Your task to perform on an android device: open app "Google Sheets" Image 0: 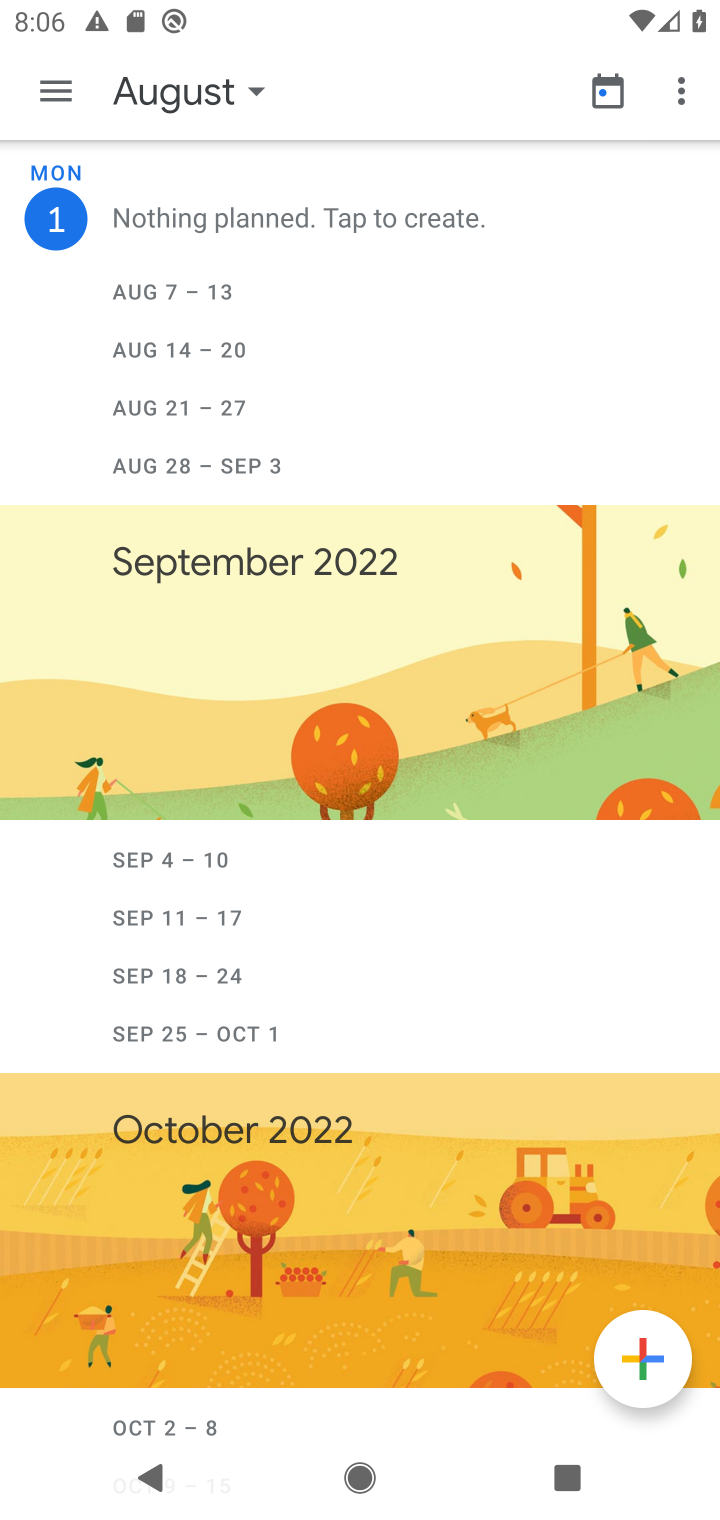
Step 0: press home button
Your task to perform on an android device: open app "Google Sheets" Image 1: 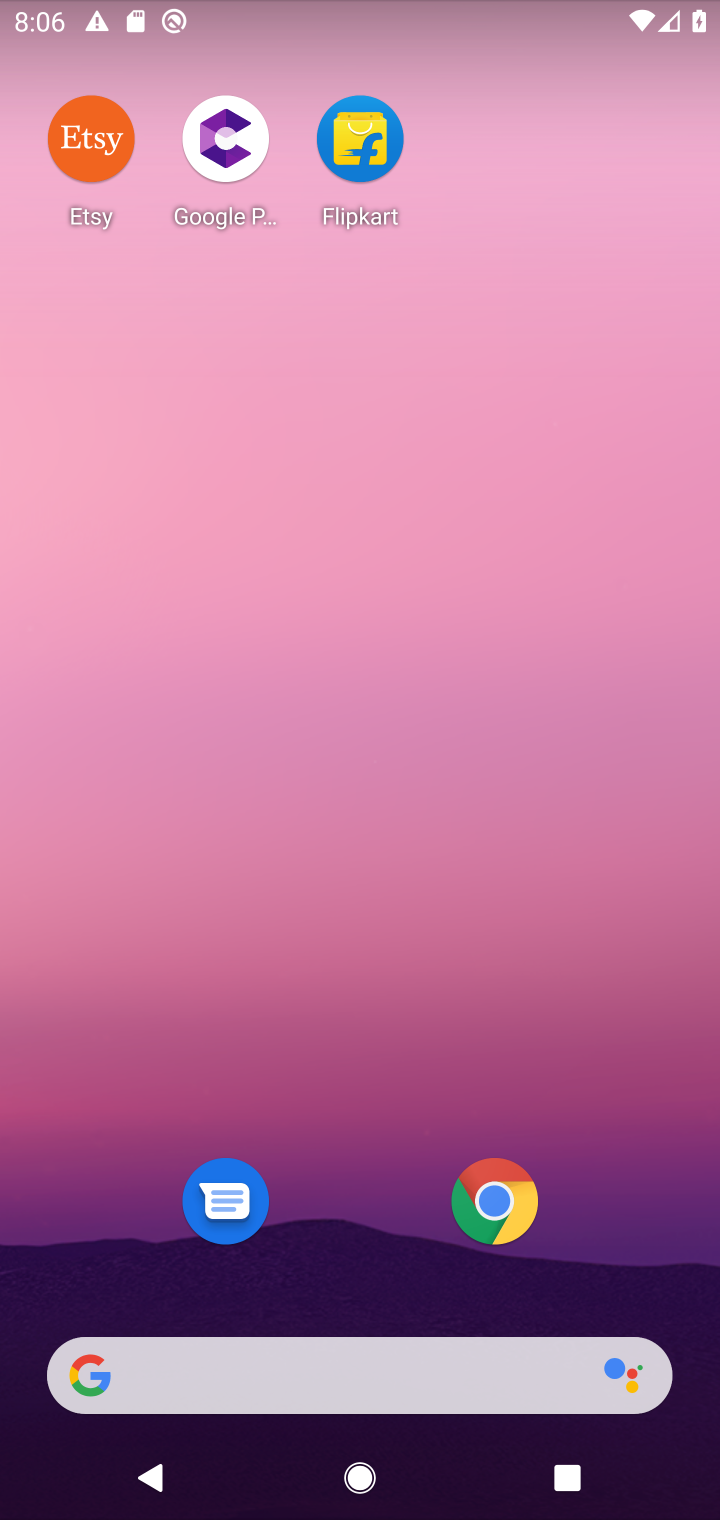
Step 1: drag from (475, 781) to (519, 102)
Your task to perform on an android device: open app "Google Sheets" Image 2: 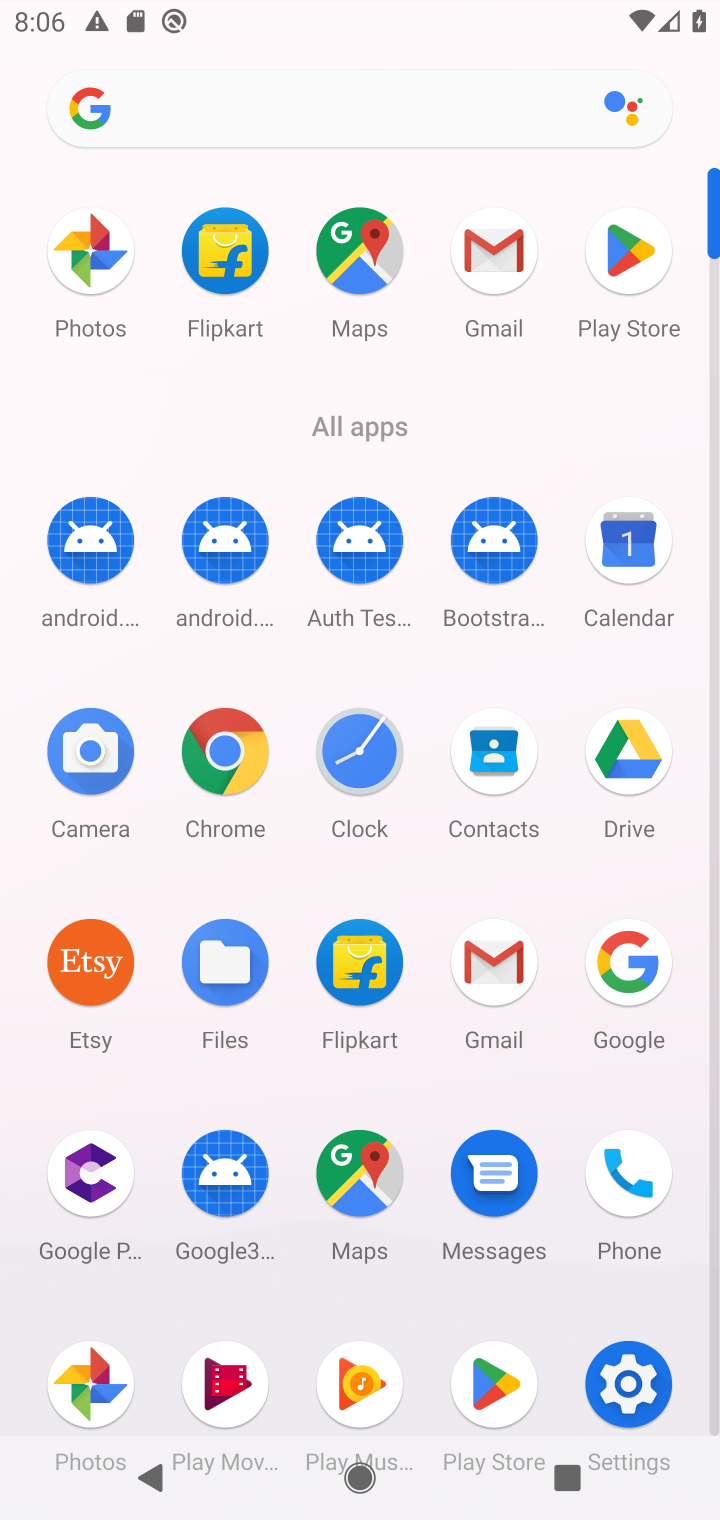
Step 2: click (645, 267)
Your task to perform on an android device: open app "Google Sheets" Image 3: 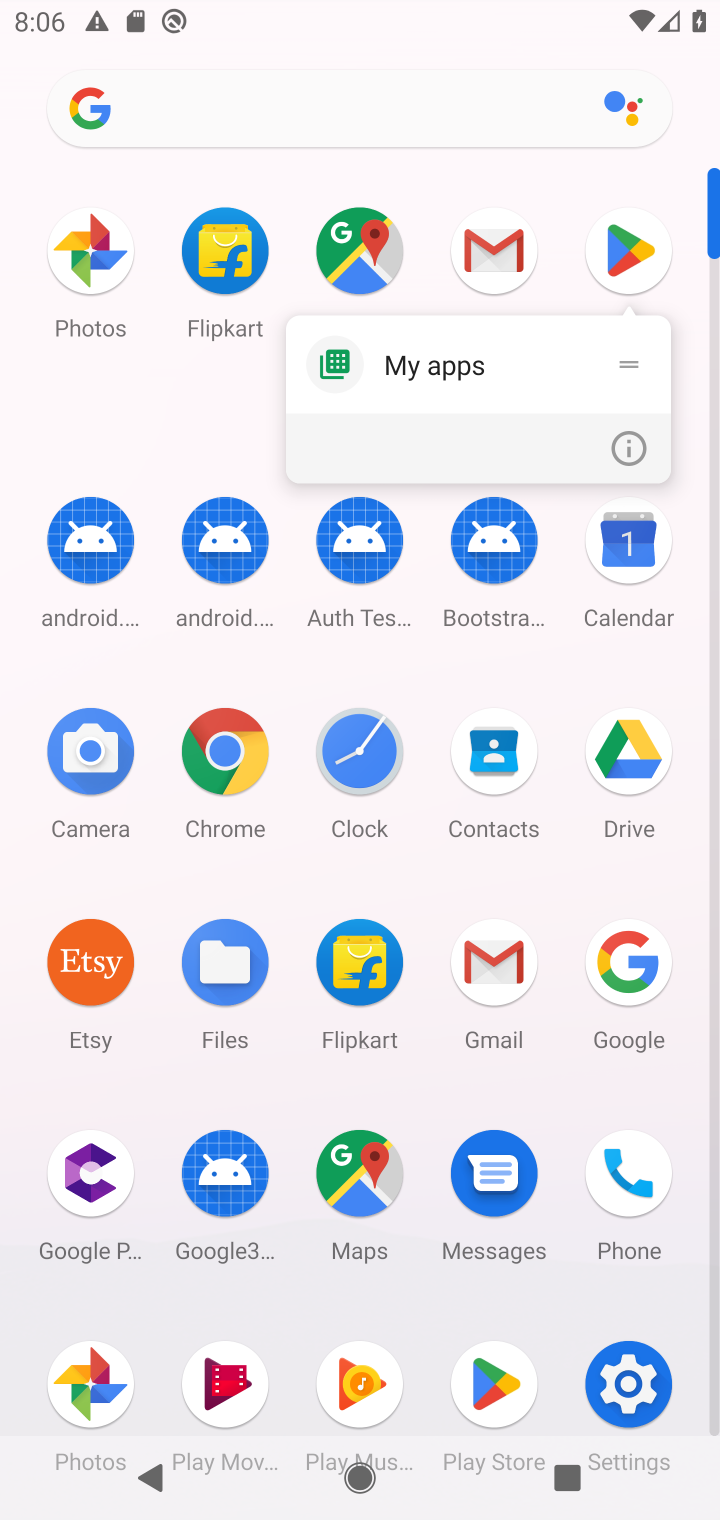
Step 3: click (619, 260)
Your task to perform on an android device: open app "Google Sheets" Image 4: 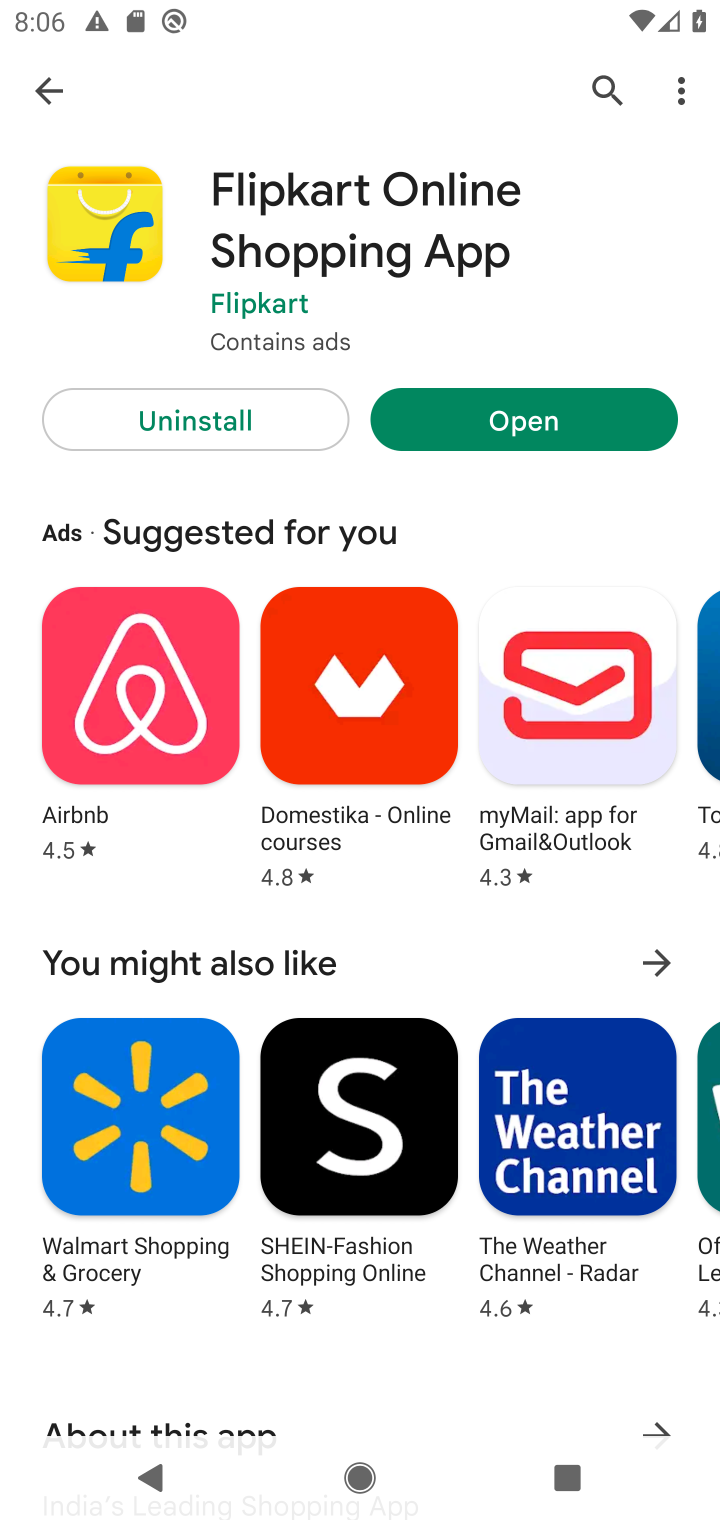
Step 4: click (649, 260)
Your task to perform on an android device: open app "Google Sheets" Image 5: 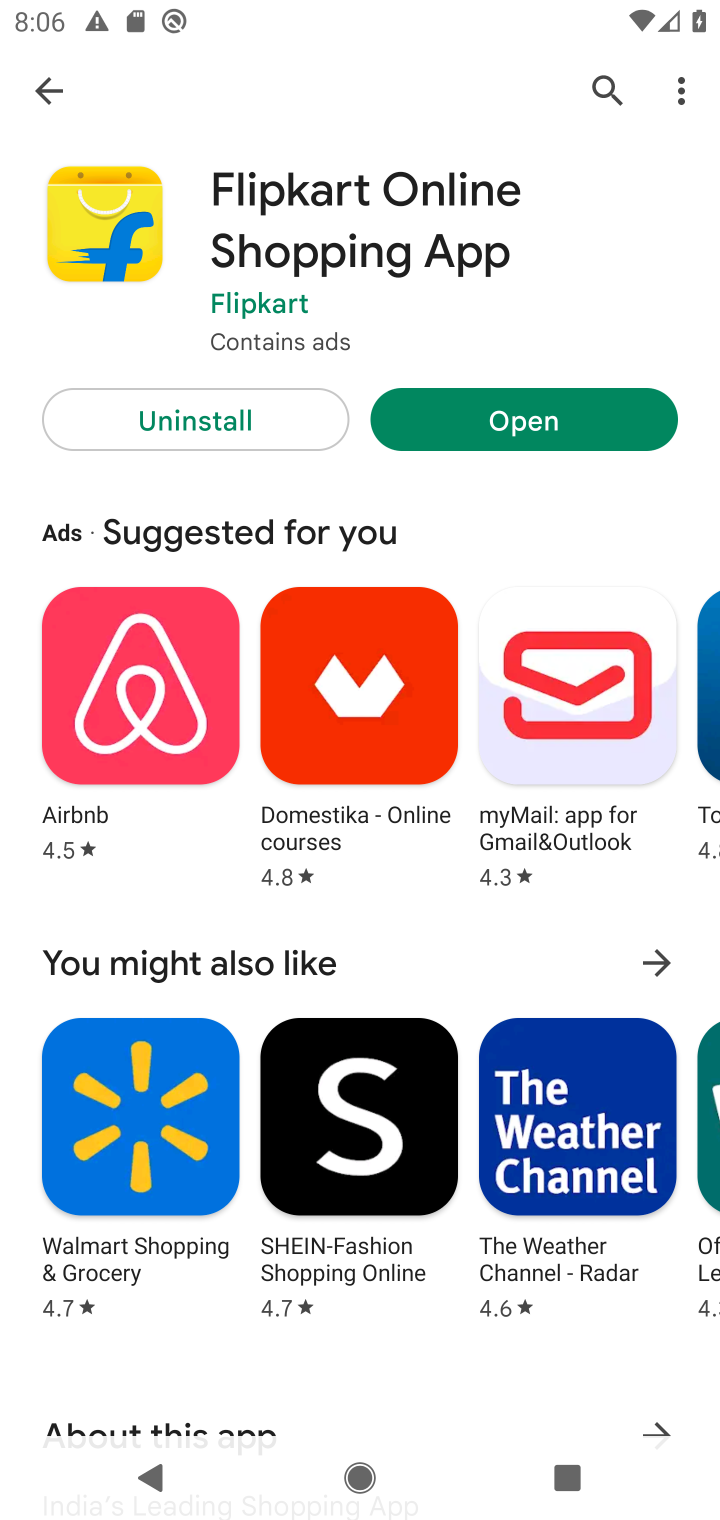
Step 5: press back button
Your task to perform on an android device: open app "Google Sheets" Image 6: 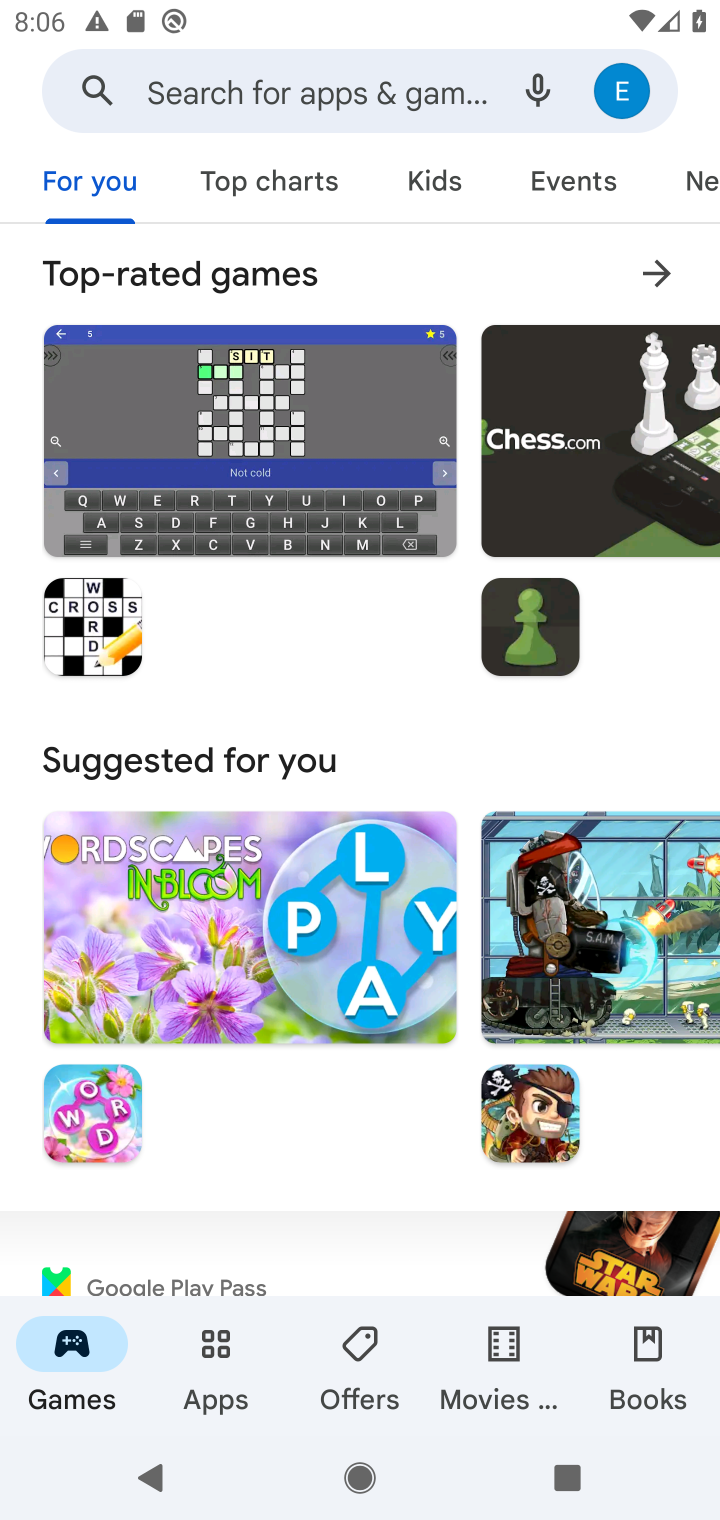
Step 6: click (324, 95)
Your task to perform on an android device: open app "Google Sheets" Image 7: 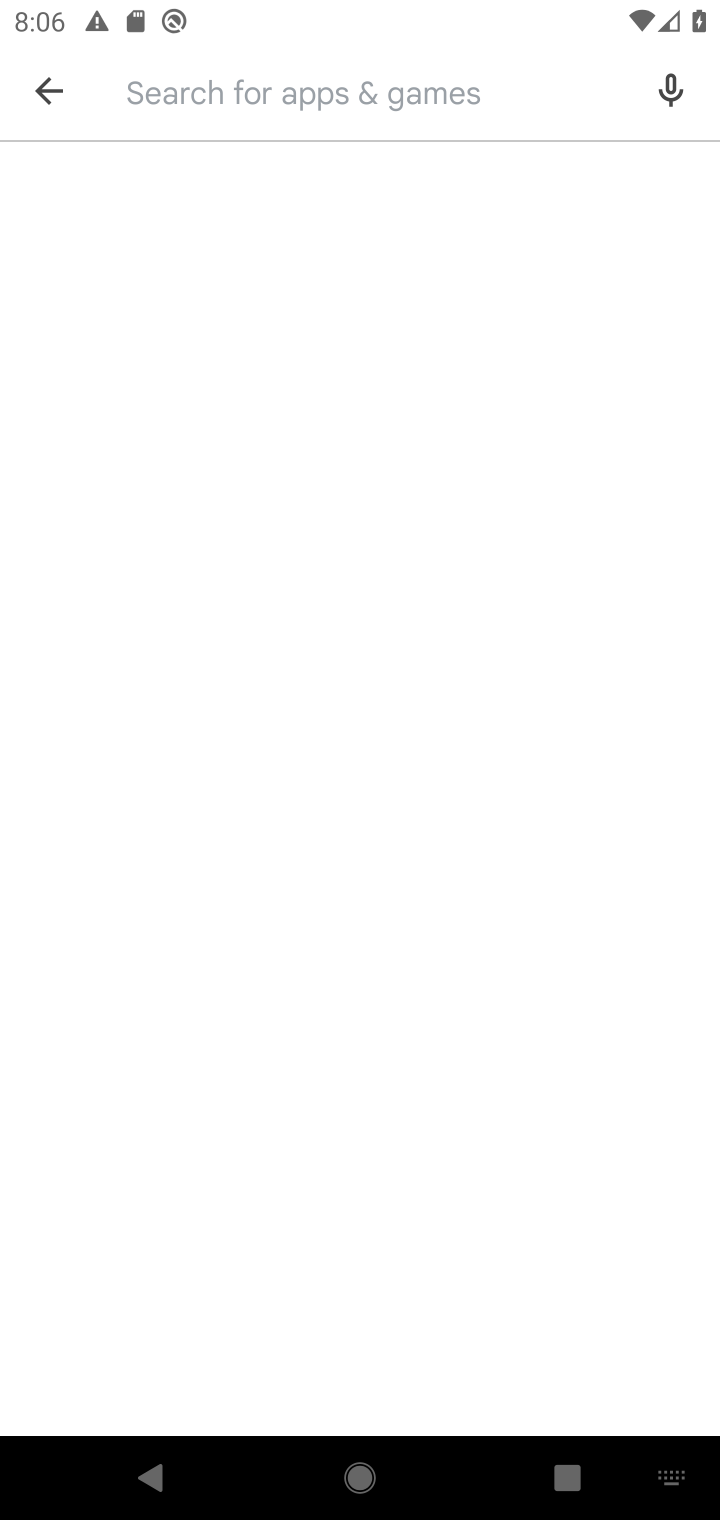
Step 7: type "Google sheets"
Your task to perform on an android device: open app "Google Sheets" Image 8: 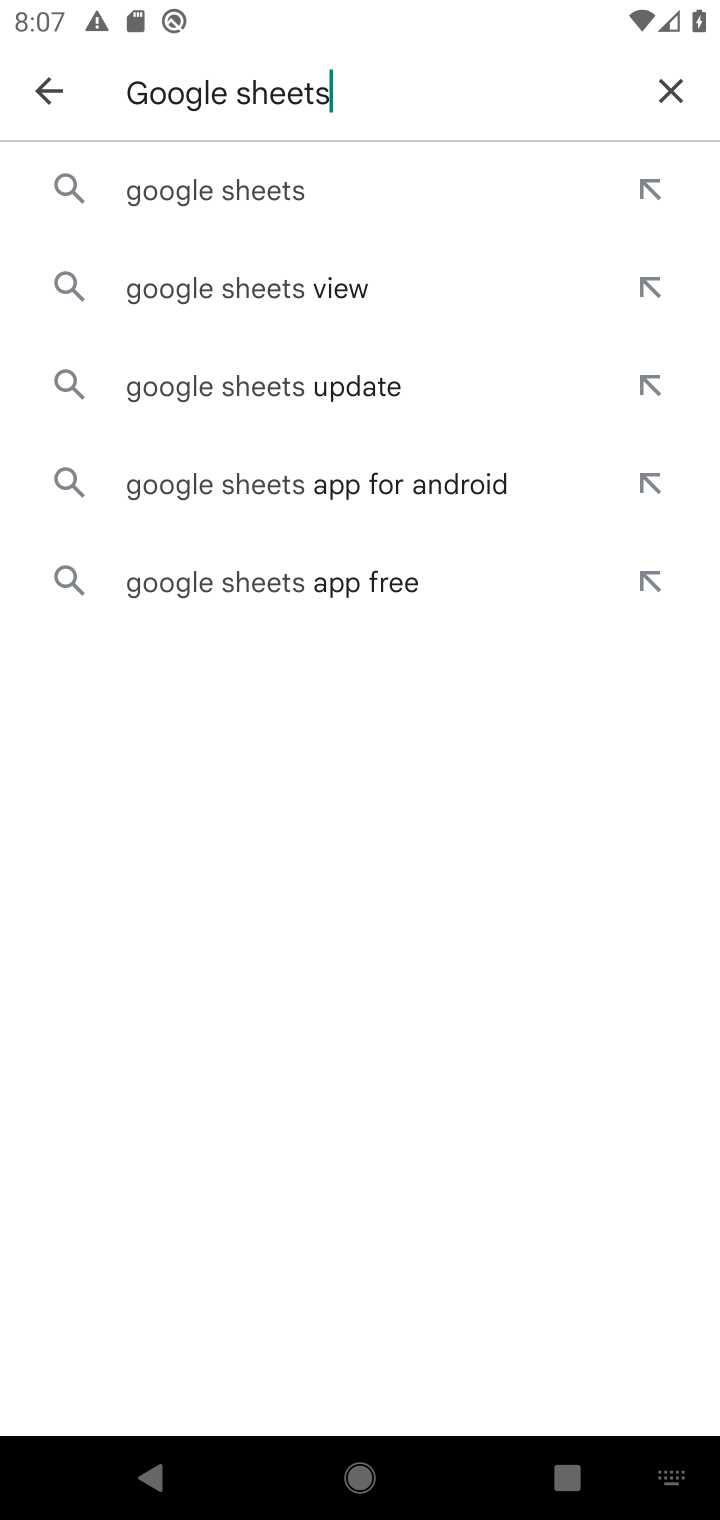
Step 8: click (244, 191)
Your task to perform on an android device: open app "Google Sheets" Image 9: 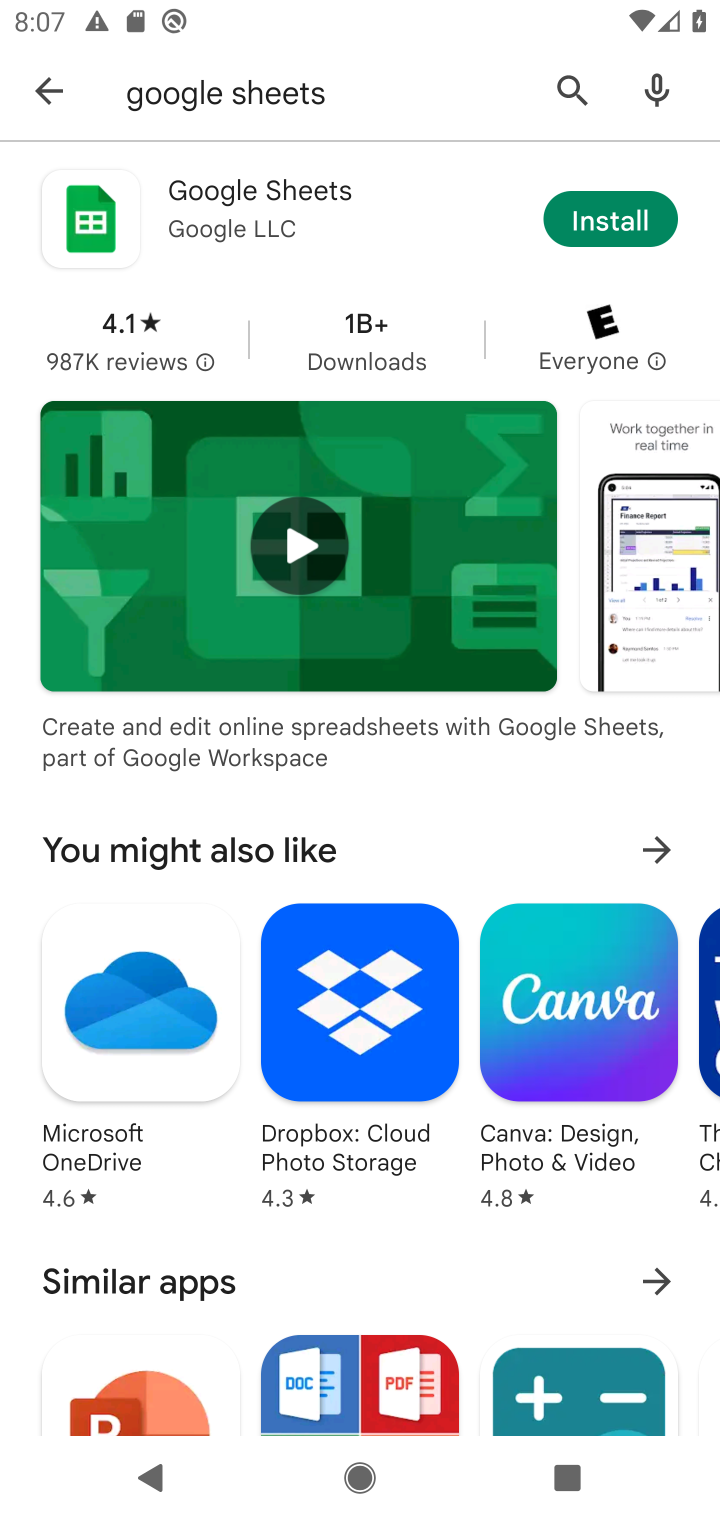
Step 9: task complete